Your task to perform on an android device: all mails in gmail Image 0: 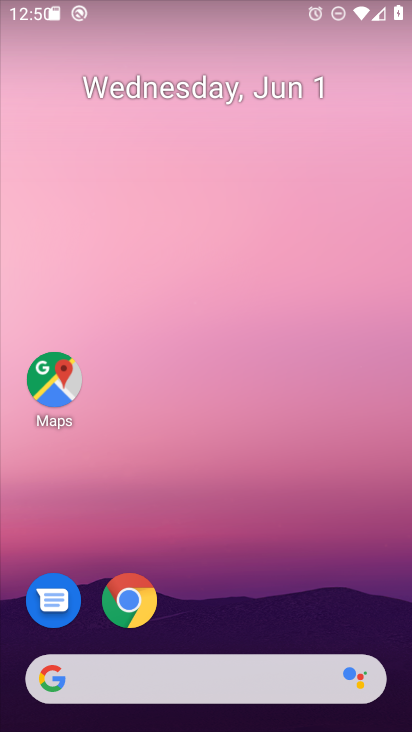
Step 0: drag from (212, 632) to (249, 29)
Your task to perform on an android device: all mails in gmail Image 1: 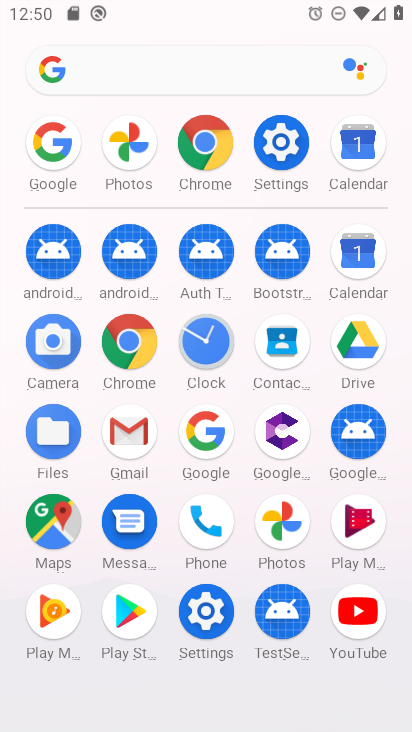
Step 1: click (125, 422)
Your task to perform on an android device: all mails in gmail Image 2: 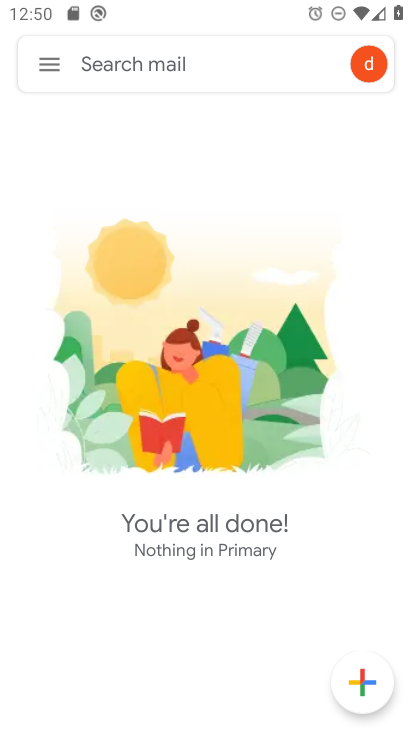
Step 2: task complete